Your task to perform on an android device: What's the weather? Image 0: 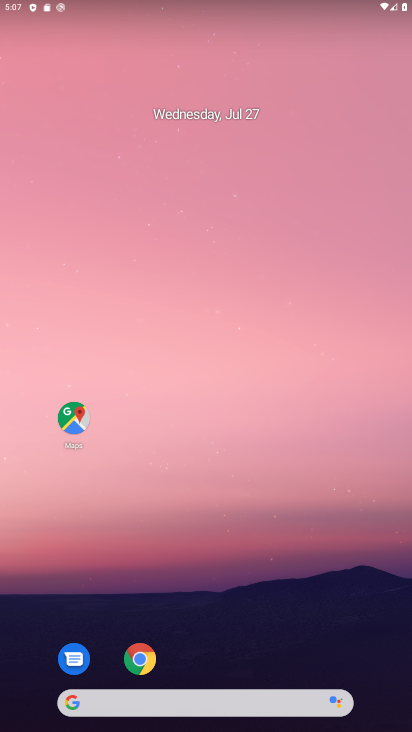
Step 0: drag from (237, 607) to (282, 113)
Your task to perform on an android device: What's the weather? Image 1: 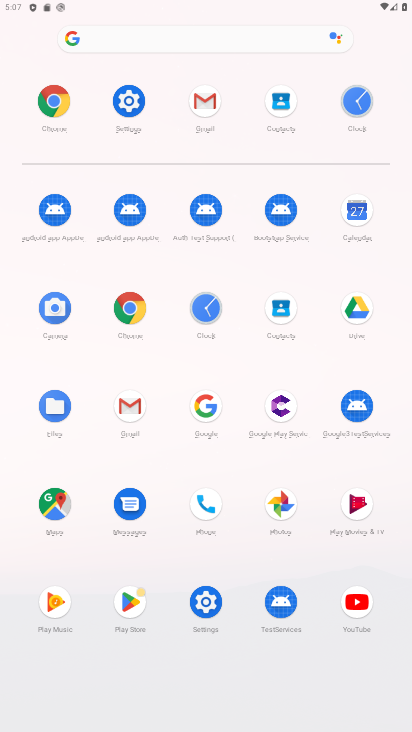
Step 1: click (125, 315)
Your task to perform on an android device: What's the weather? Image 2: 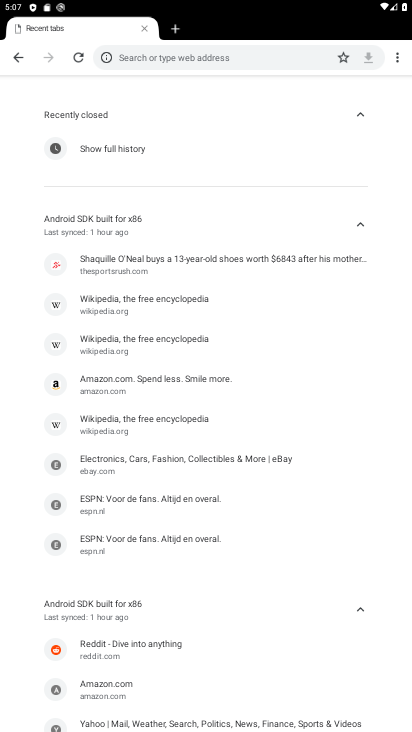
Step 2: click (202, 54)
Your task to perform on an android device: What's the weather? Image 3: 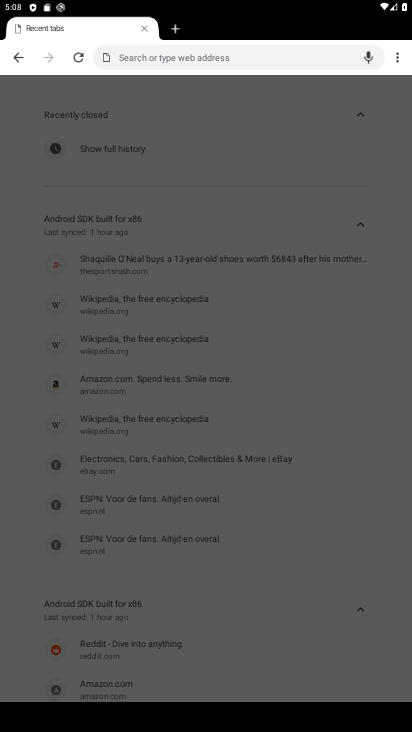
Step 3: type "What's the weather?"
Your task to perform on an android device: What's the weather? Image 4: 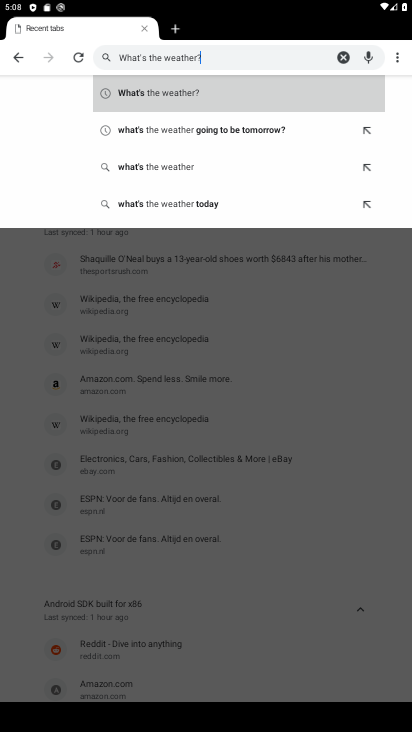
Step 4: type ""
Your task to perform on an android device: What's the weather? Image 5: 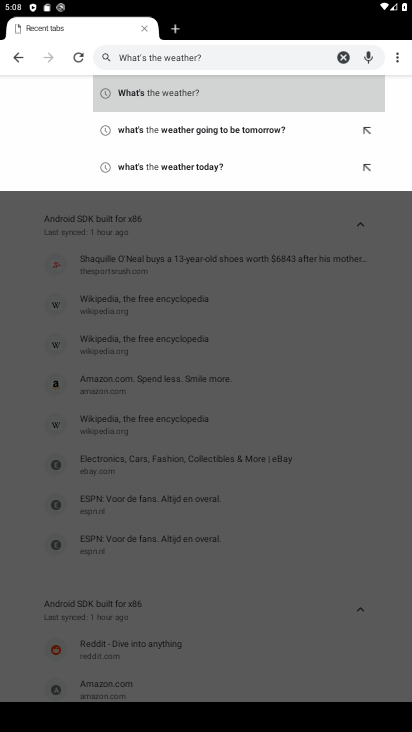
Step 5: click (169, 84)
Your task to perform on an android device: What's the weather? Image 6: 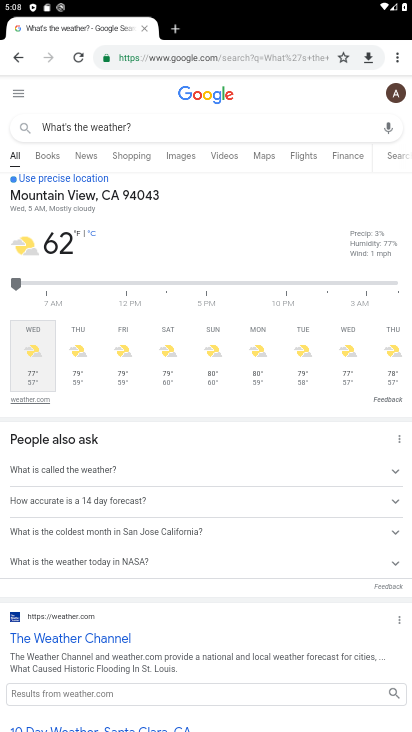
Step 6: task complete